Your task to perform on an android device: turn on location history Image 0: 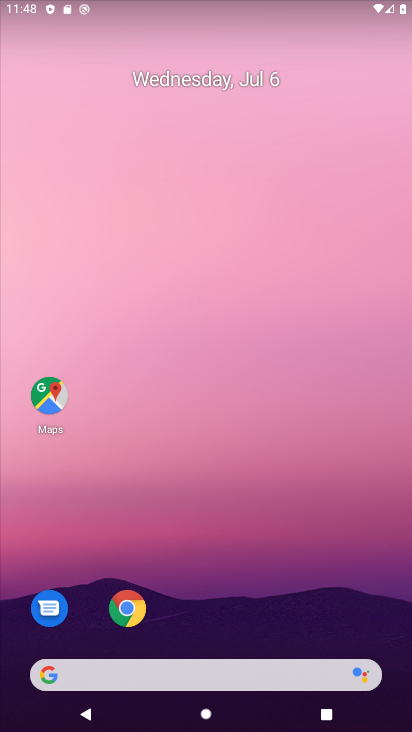
Step 0: drag from (331, 698) to (300, 249)
Your task to perform on an android device: turn on location history Image 1: 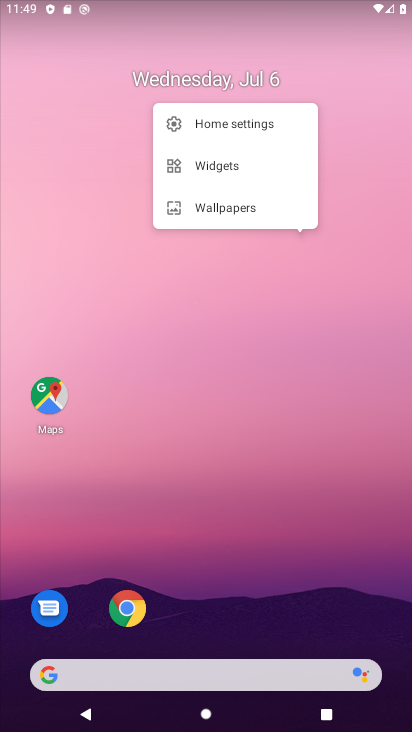
Step 1: click (366, 430)
Your task to perform on an android device: turn on location history Image 2: 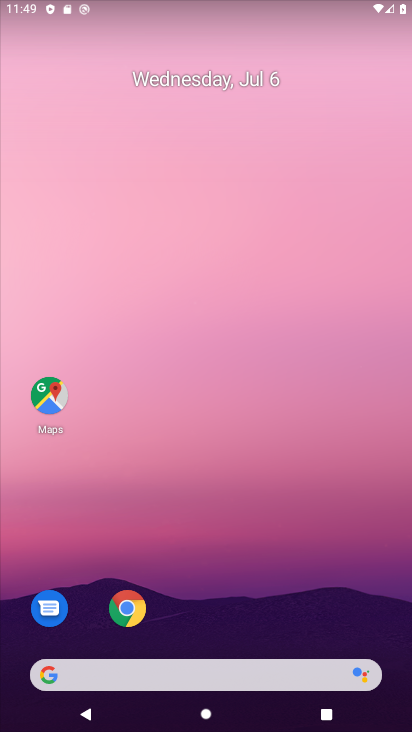
Step 2: drag from (261, 609) to (269, 99)
Your task to perform on an android device: turn on location history Image 3: 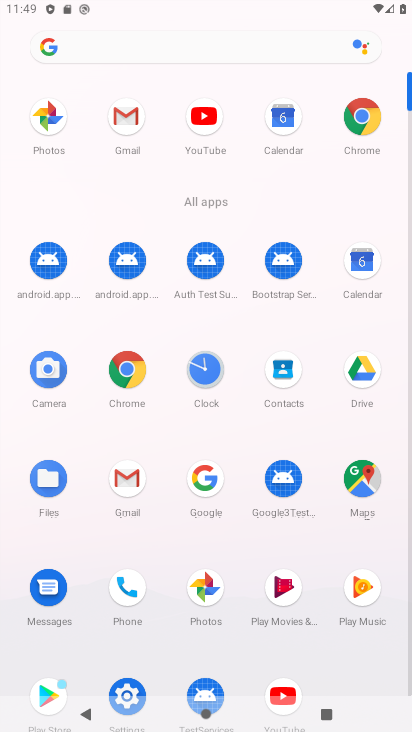
Step 3: click (377, 483)
Your task to perform on an android device: turn on location history Image 4: 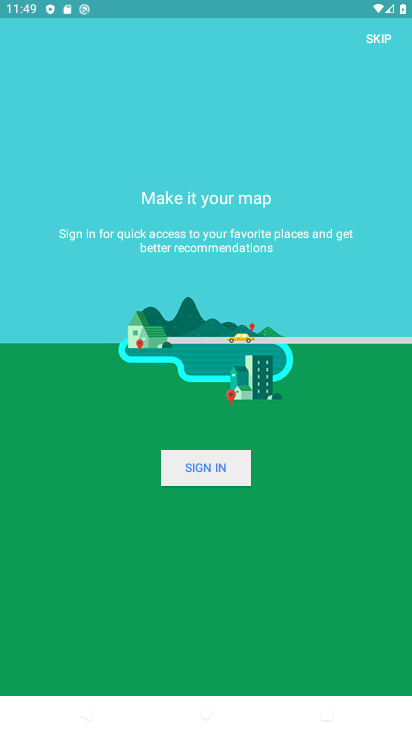
Step 4: task complete